Your task to perform on an android device: Show me productivity apps on the Play Store Image 0: 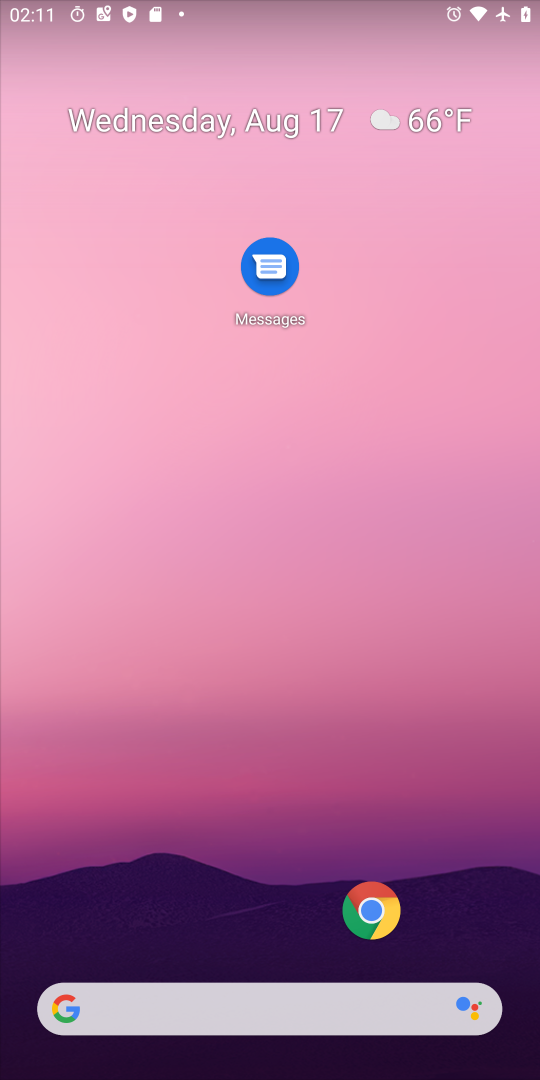
Step 0: drag from (242, 778) to (302, 217)
Your task to perform on an android device: Show me productivity apps on the Play Store Image 1: 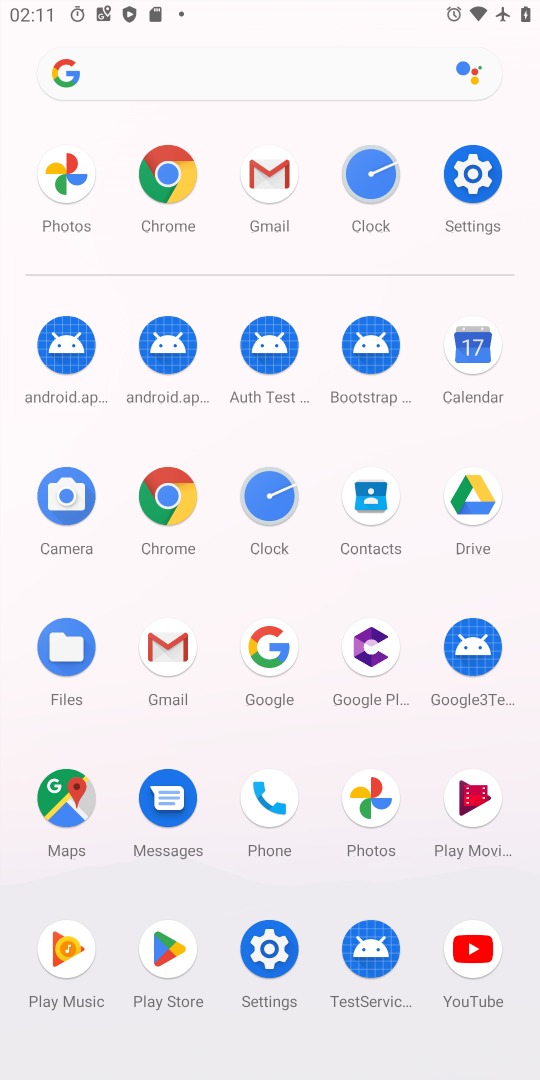
Step 1: click (163, 938)
Your task to perform on an android device: Show me productivity apps on the Play Store Image 2: 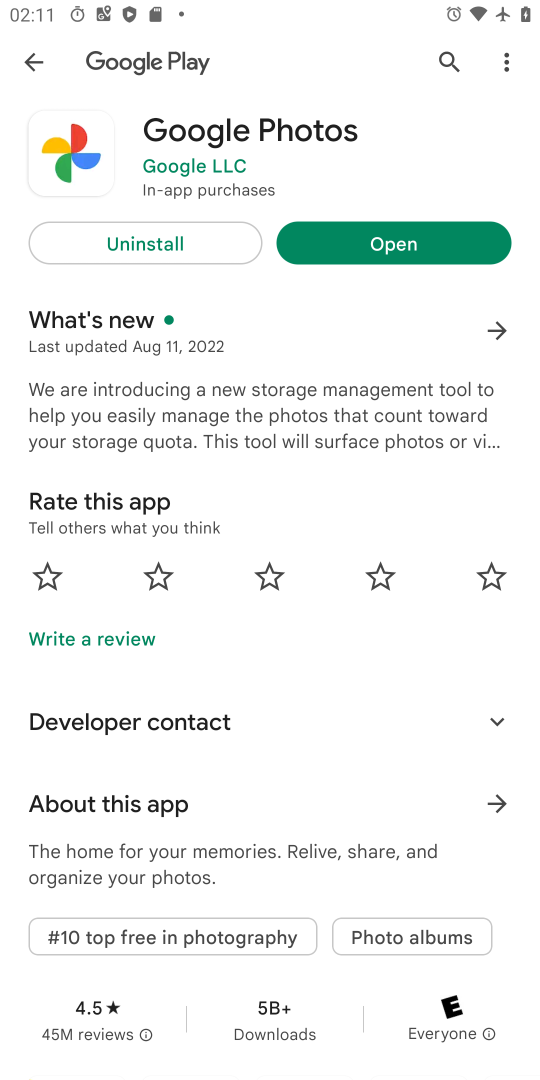
Step 2: press back button
Your task to perform on an android device: Show me productivity apps on the Play Store Image 3: 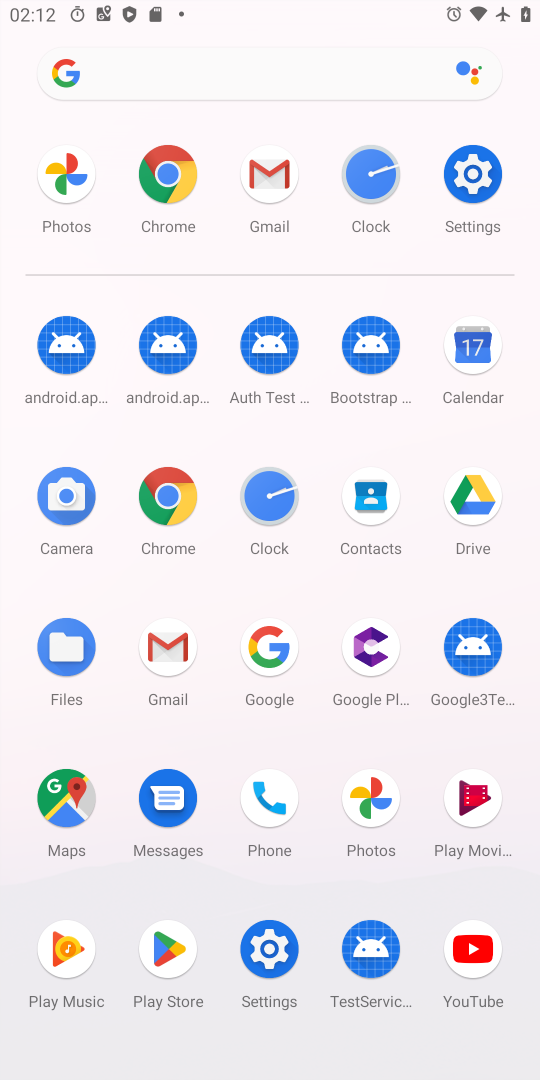
Step 3: click (176, 950)
Your task to perform on an android device: Show me productivity apps on the Play Store Image 4: 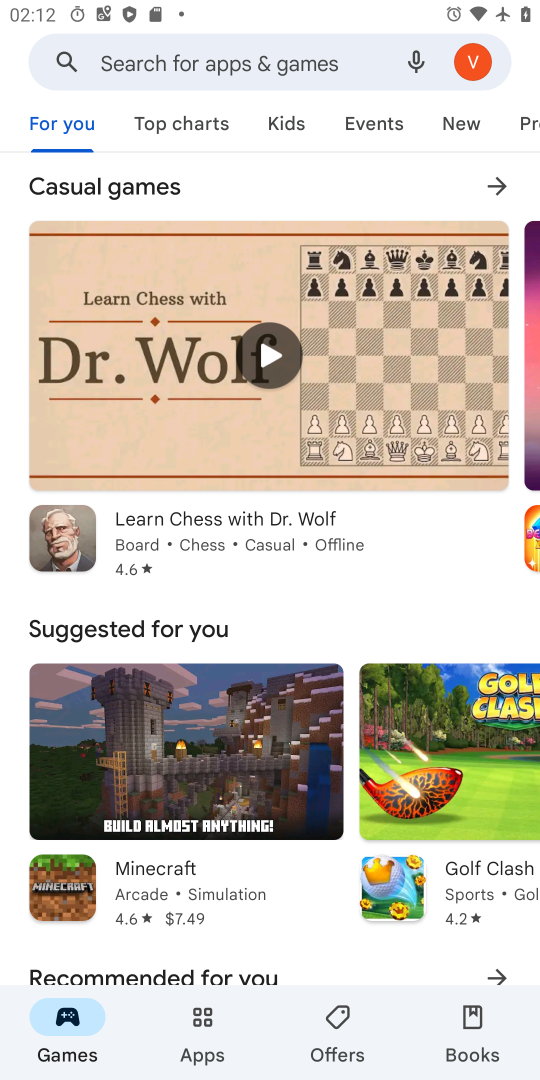
Step 4: click (196, 1024)
Your task to perform on an android device: Show me productivity apps on the Play Store Image 5: 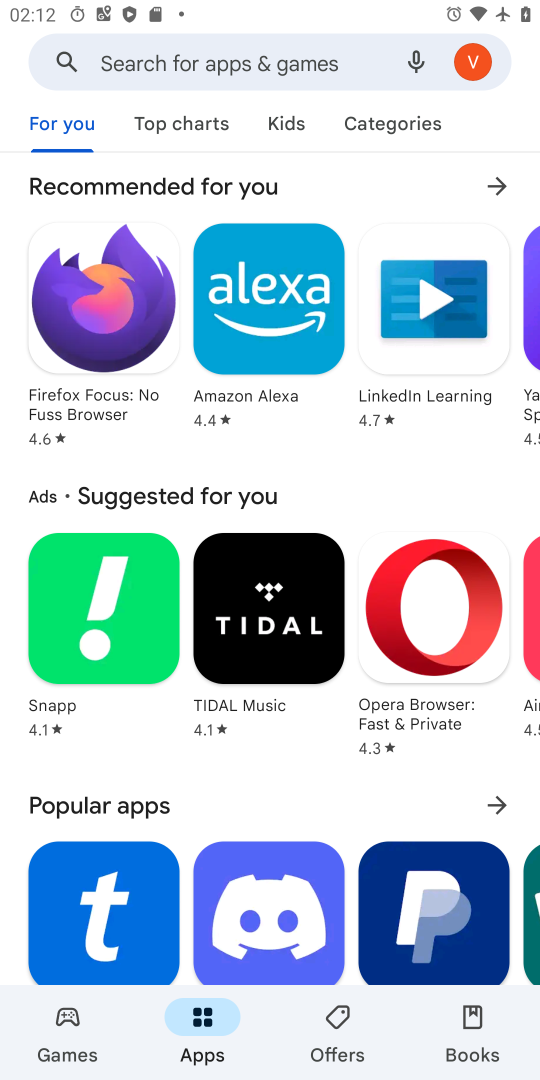
Step 5: drag from (279, 801) to (302, 92)
Your task to perform on an android device: Show me productivity apps on the Play Store Image 6: 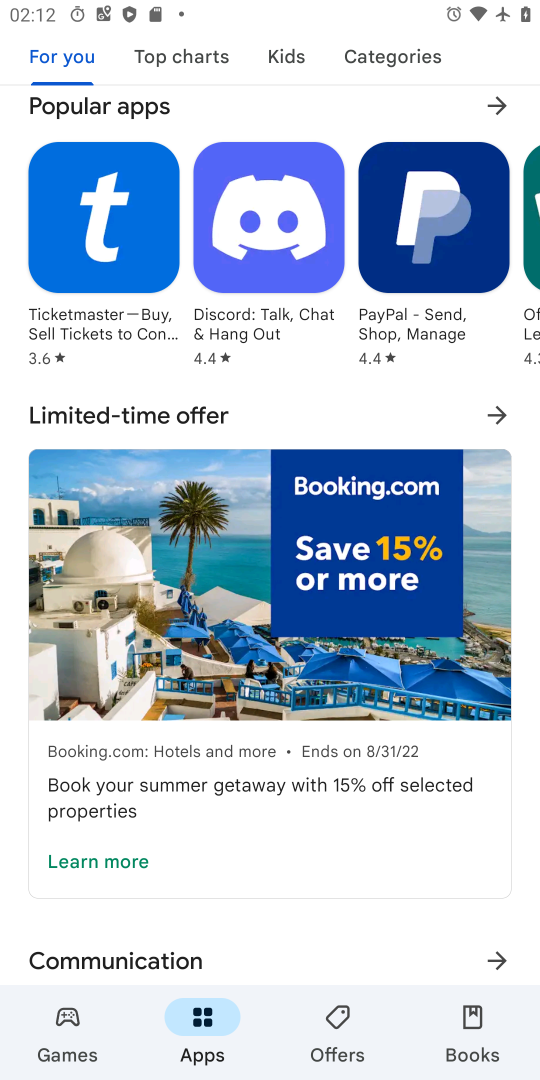
Step 6: drag from (291, 868) to (283, 154)
Your task to perform on an android device: Show me productivity apps on the Play Store Image 7: 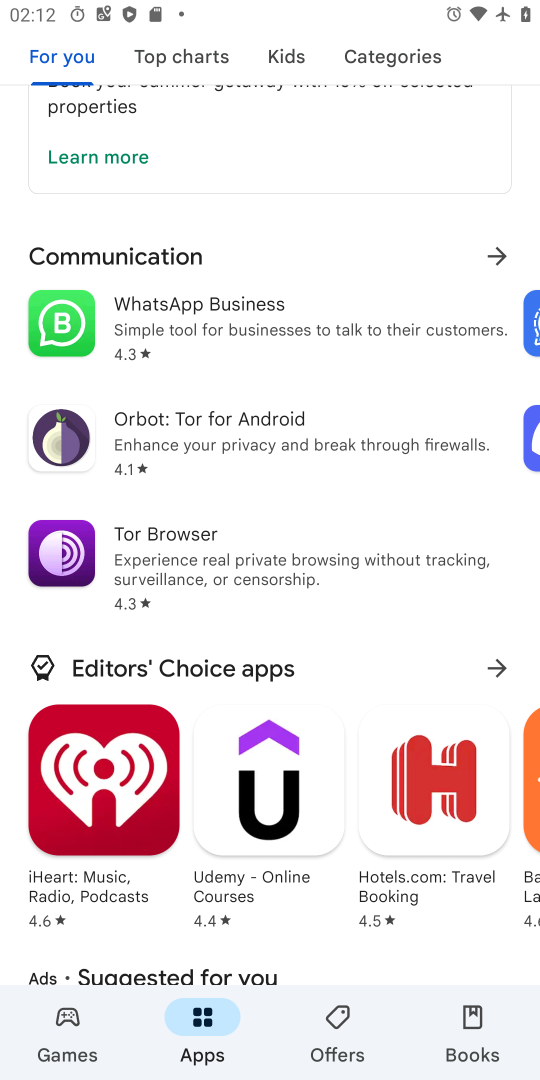
Step 7: drag from (319, 905) to (349, 166)
Your task to perform on an android device: Show me productivity apps on the Play Store Image 8: 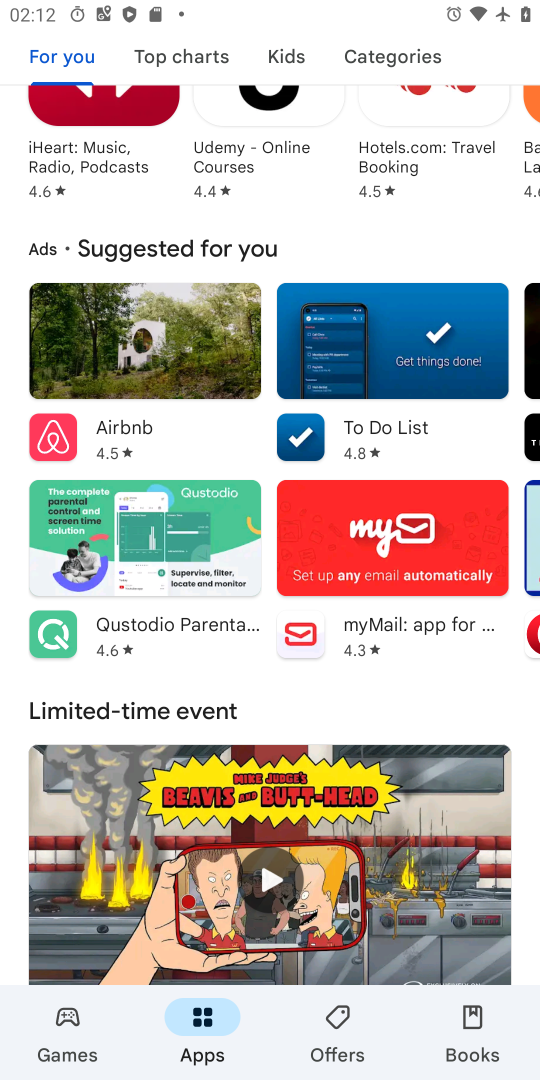
Step 8: drag from (329, 708) to (379, 135)
Your task to perform on an android device: Show me productivity apps on the Play Store Image 9: 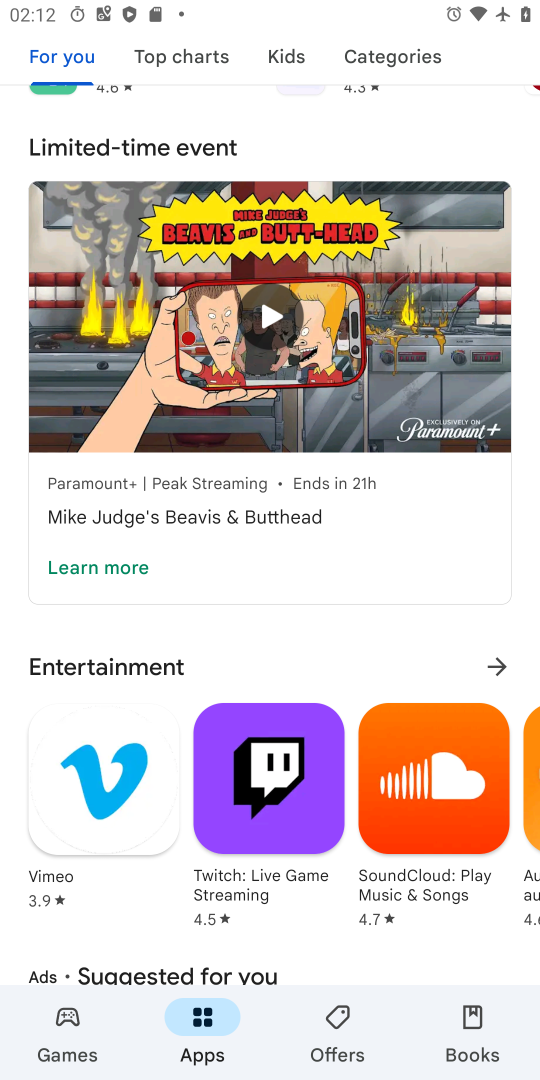
Step 9: drag from (287, 624) to (322, 156)
Your task to perform on an android device: Show me productivity apps on the Play Store Image 10: 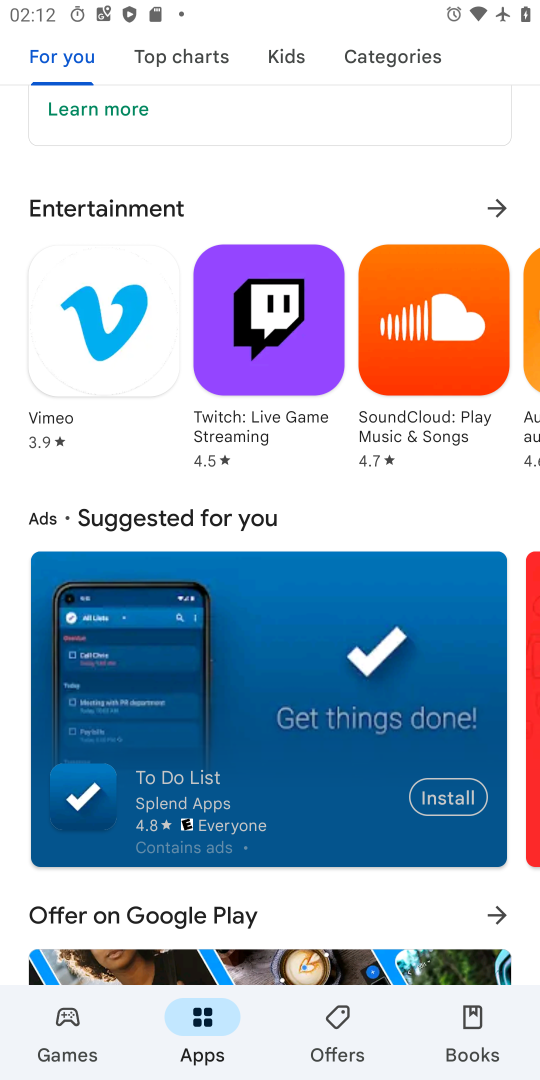
Step 10: drag from (350, 922) to (361, 123)
Your task to perform on an android device: Show me productivity apps on the Play Store Image 11: 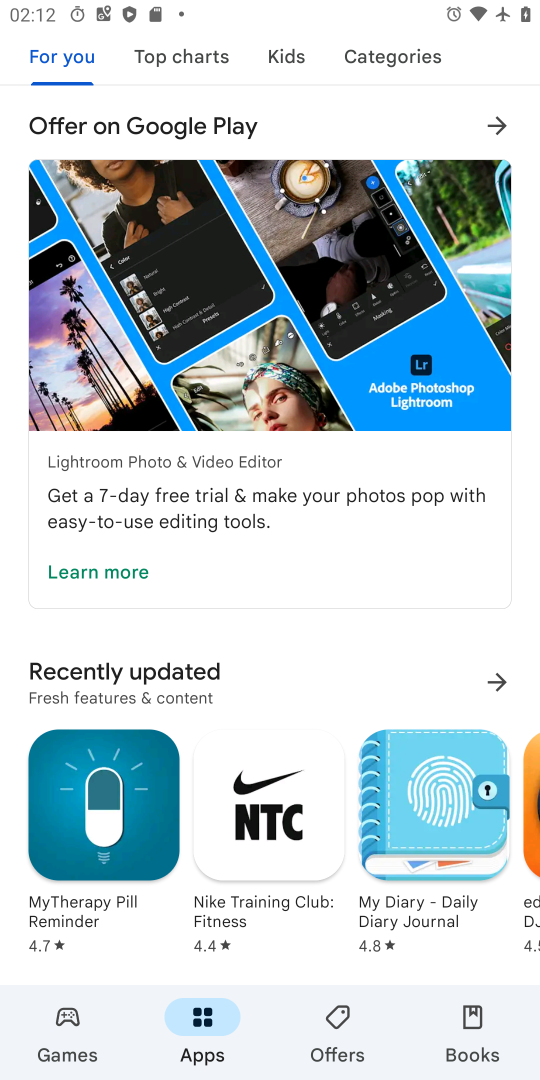
Step 11: drag from (279, 636) to (303, 20)
Your task to perform on an android device: Show me productivity apps on the Play Store Image 12: 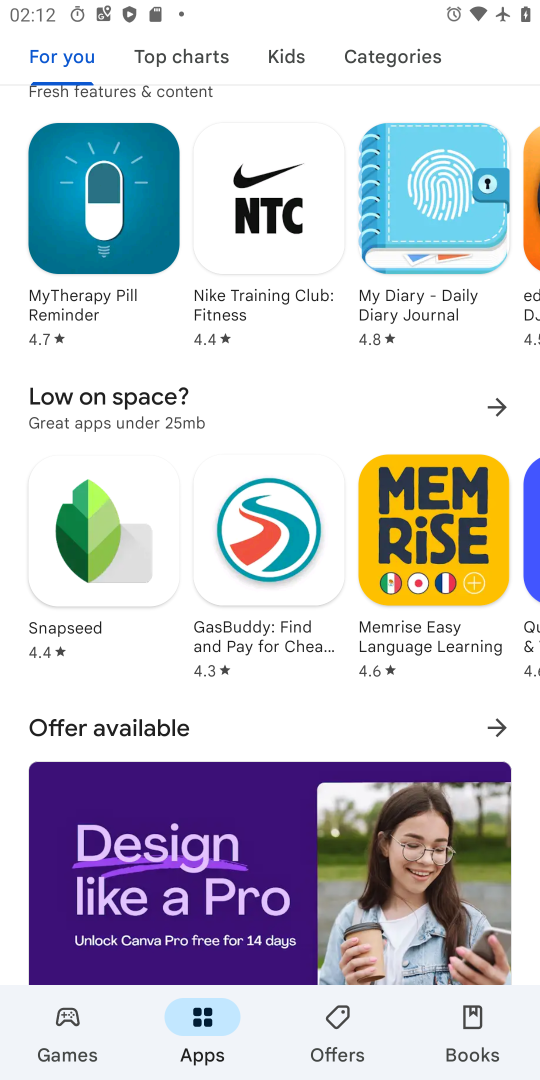
Step 12: drag from (315, 726) to (341, 74)
Your task to perform on an android device: Show me productivity apps on the Play Store Image 13: 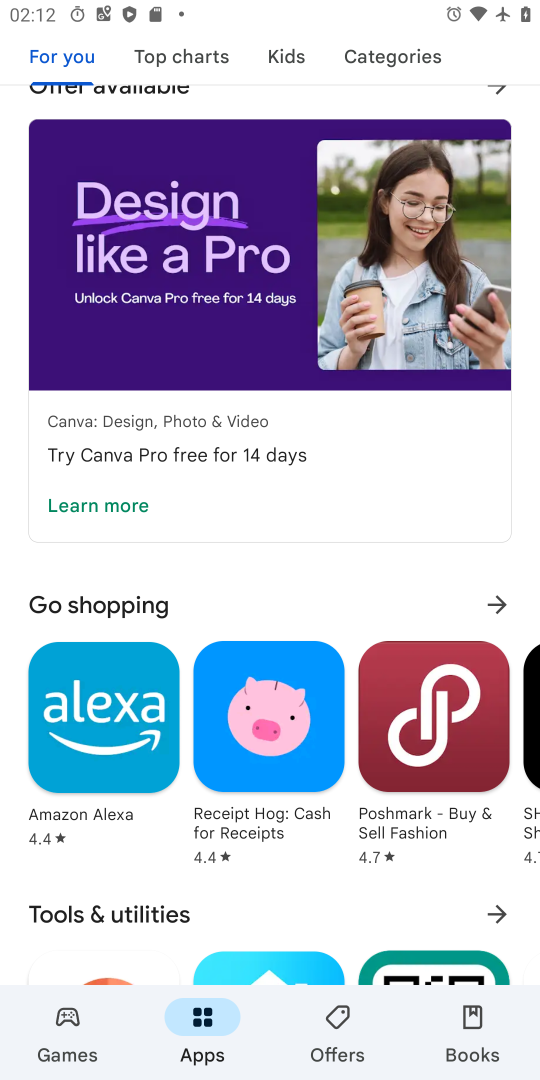
Step 13: click (306, 594)
Your task to perform on an android device: Show me productivity apps on the Play Store Image 14: 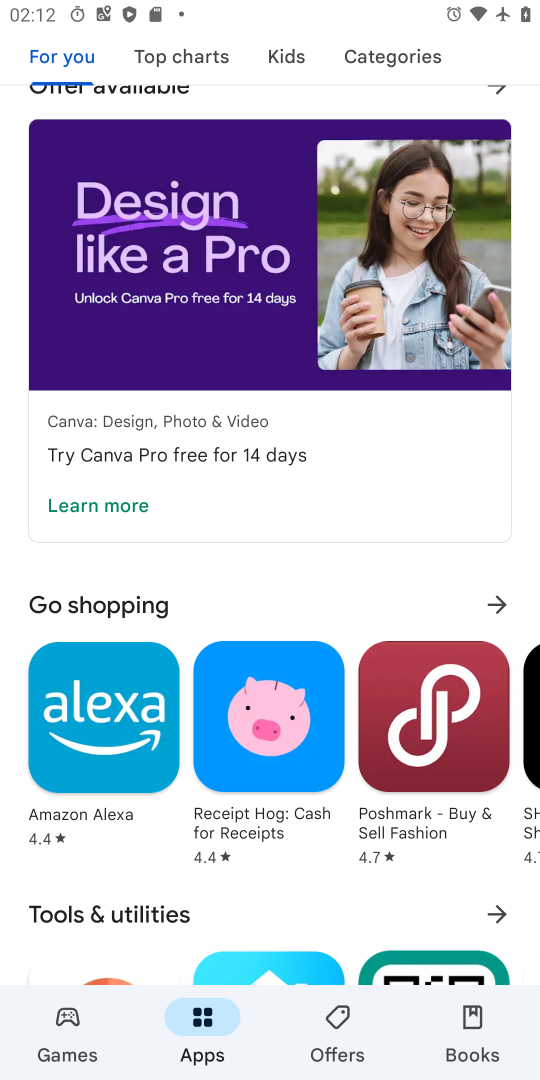
Step 14: drag from (306, 594) to (310, 150)
Your task to perform on an android device: Show me productivity apps on the Play Store Image 15: 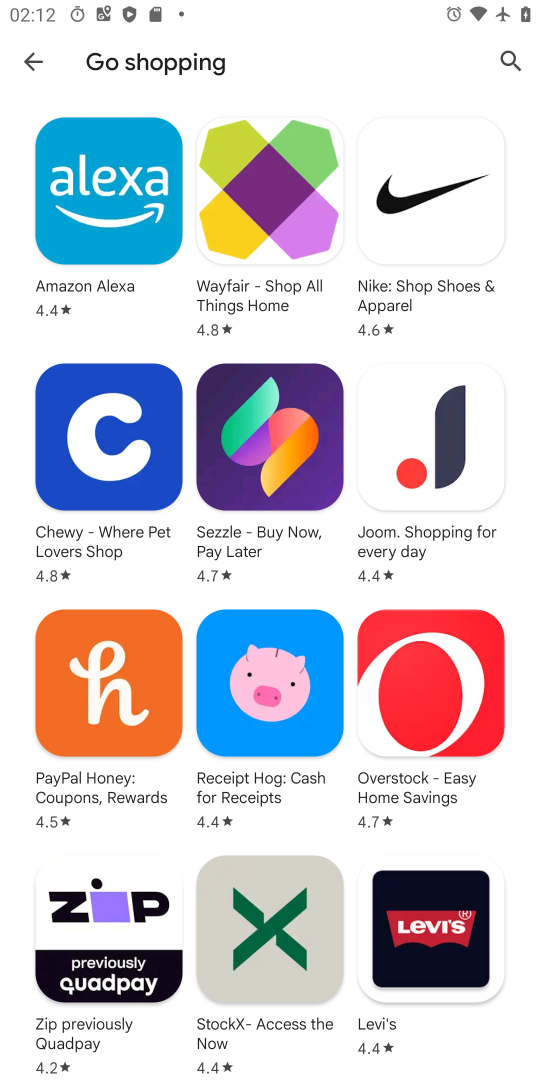
Step 15: click (34, 53)
Your task to perform on an android device: Show me productivity apps on the Play Store Image 16: 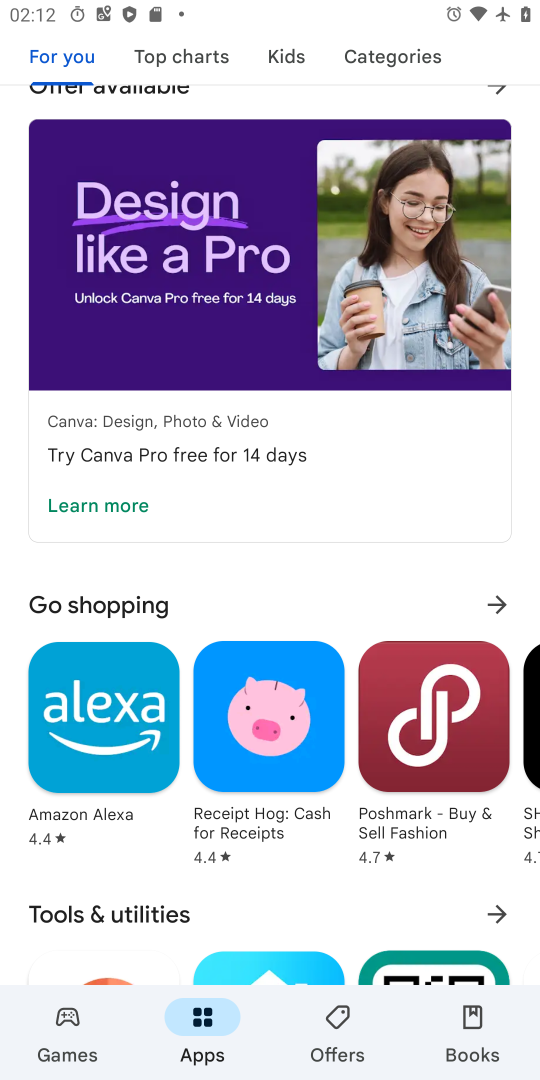
Step 16: task complete